Your task to perform on an android device: Open ESPN.com Image 0: 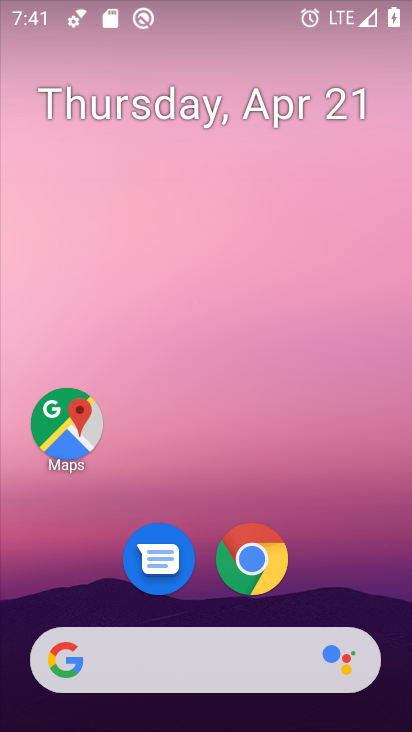
Step 0: drag from (339, 539) to (336, 21)
Your task to perform on an android device: Open ESPN.com Image 1: 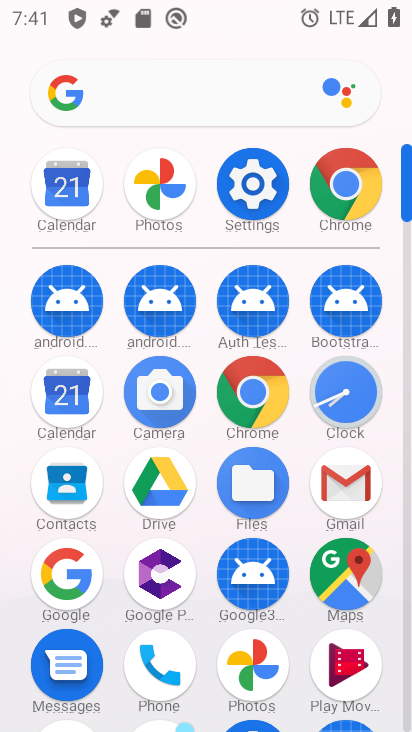
Step 1: click (342, 206)
Your task to perform on an android device: Open ESPN.com Image 2: 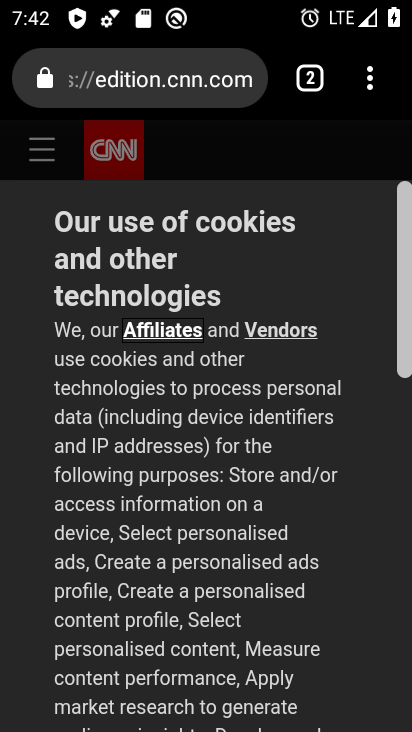
Step 2: click (220, 78)
Your task to perform on an android device: Open ESPN.com Image 3: 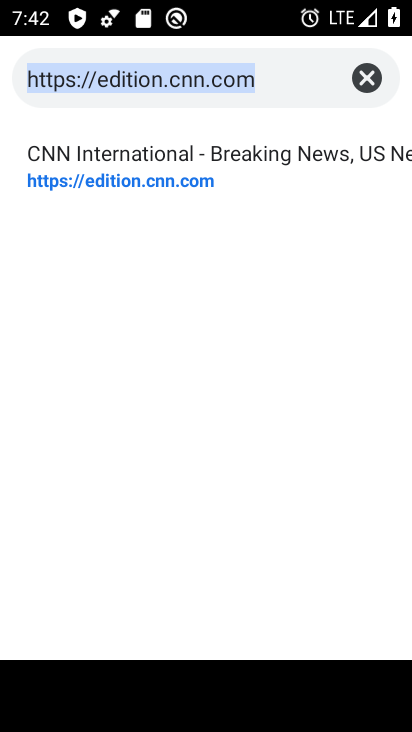
Step 3: click (363, 70)
Your task to perform on an android device: Open ESPN.com Image 4: 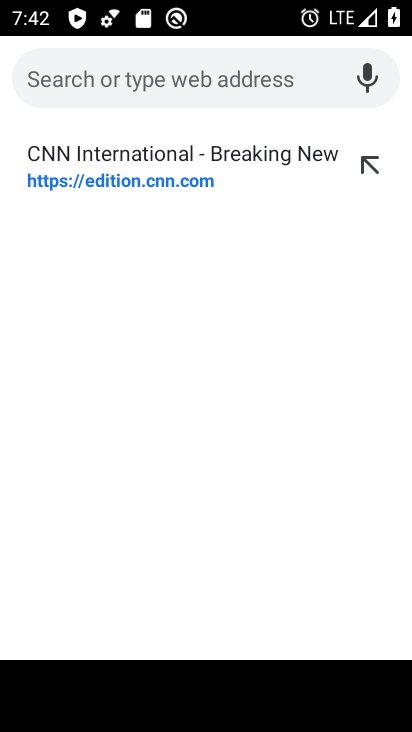
Step 4: type "espn.com"
Your task to perform on an android device: Open ESPN.com Image 5: 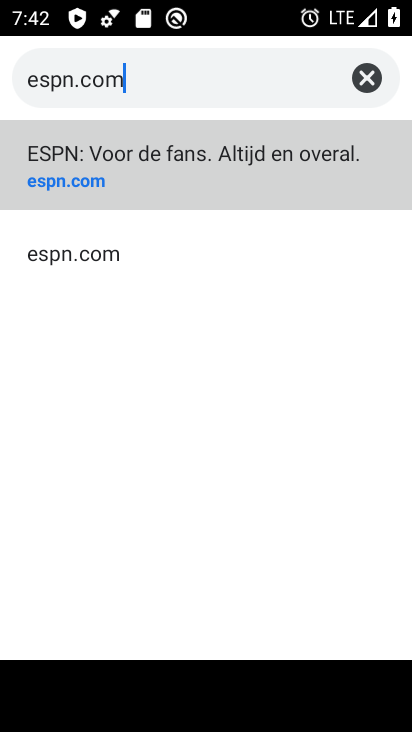
Step 5: click (109, 158)
Your task to perform on an android device: Open ESPN.com Image 6: 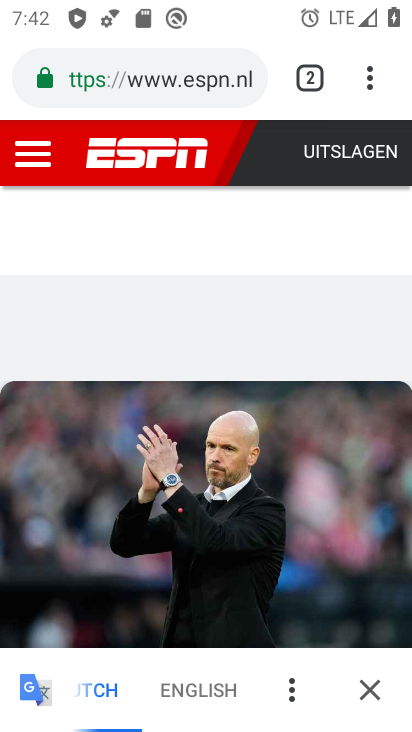
Step 6: task complete